Your task to perform on an android device: clear all cookies in the chrome app Image 0: 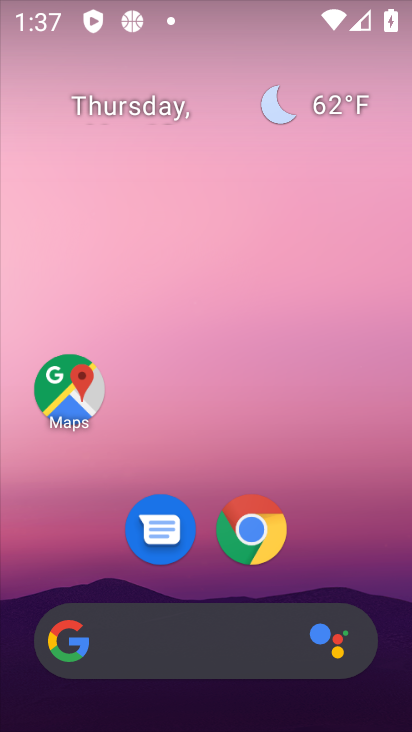
Step 0: click (254, 527)
Your task to perform on an android device: clear all cookies in the chrome app Image 1: 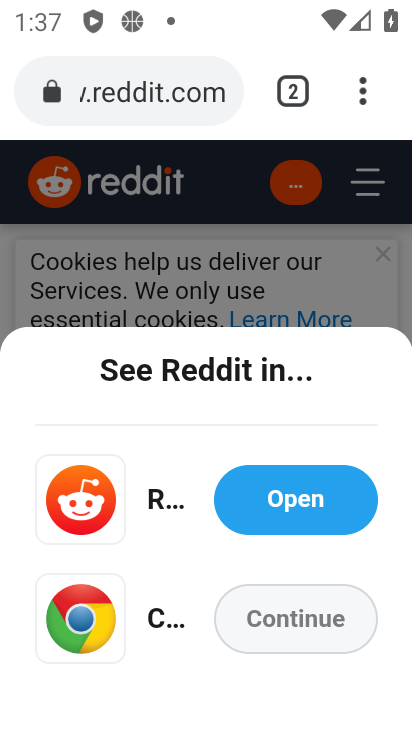
Step 1: click (365, 90)
Your task to perform on an android device: clear all cookies in the chrome app Image 2: 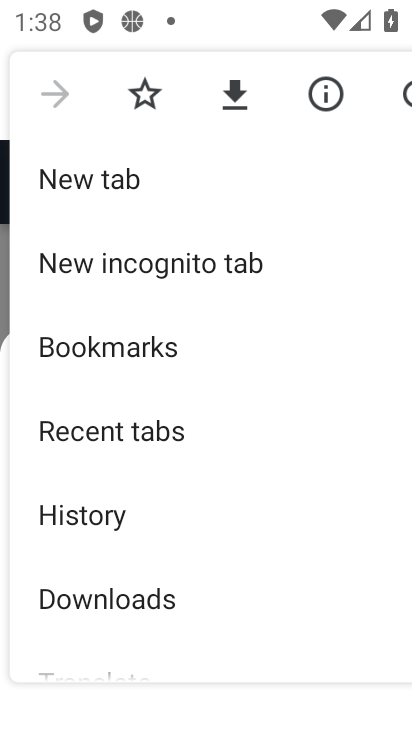
Step 2: drag from (175, 460) to (211, 379)
Your task to perform on an android device: clear all cookies in the chrome app Image 3: 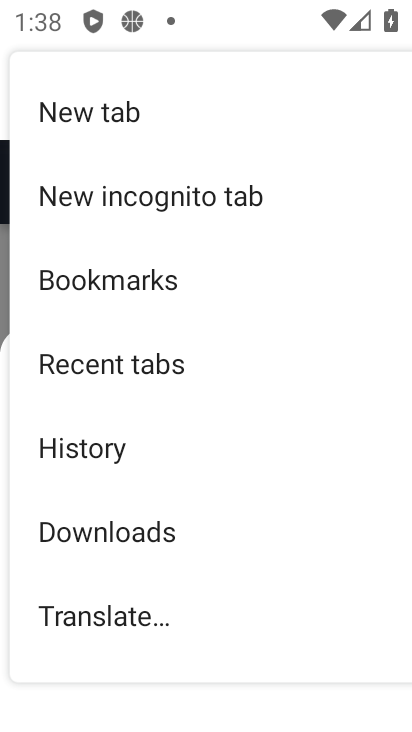
Step 3: drag from (144, 518) to (195, 449)
Your task to perform on an android device: clear all cookies in the chrome app Image 4: 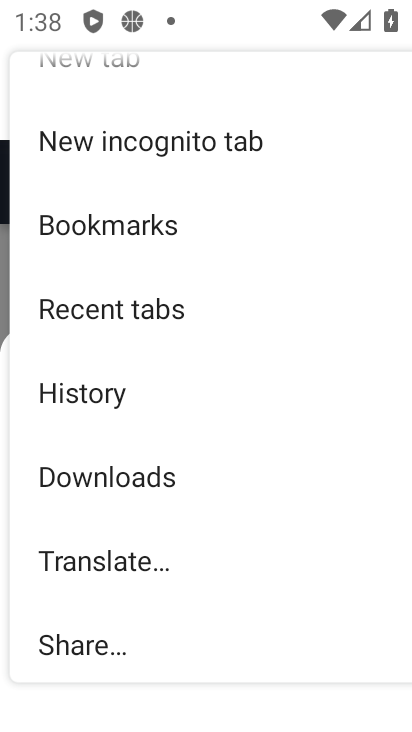
Step 4: drag from (132, 519) to (203, 435)
Your task to perform on an android device: clear all cookies in the chrome app Image 5: 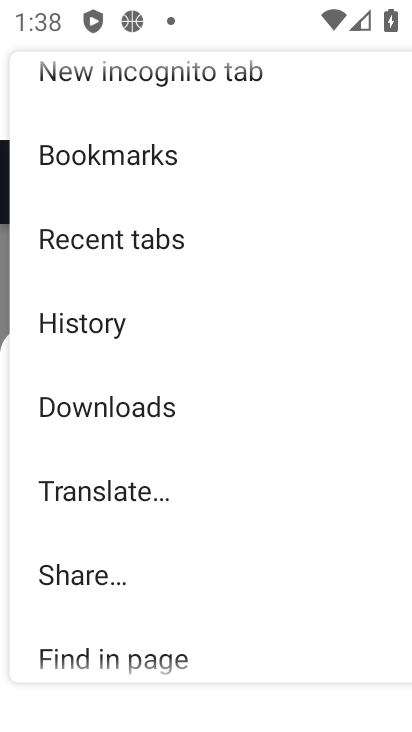
Step 5: drag from (109, 535) to (192, 436)
Your task to perform on an android device: clear all cookies in the chrome app Image 6: 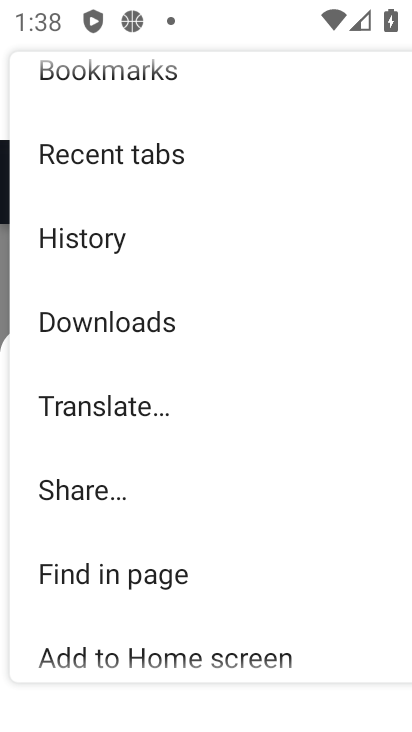
Step 6: drag from (103, 529) to (206, 416)
Your task to perform on an android device: clear all cookies in the chrome app Image 7: 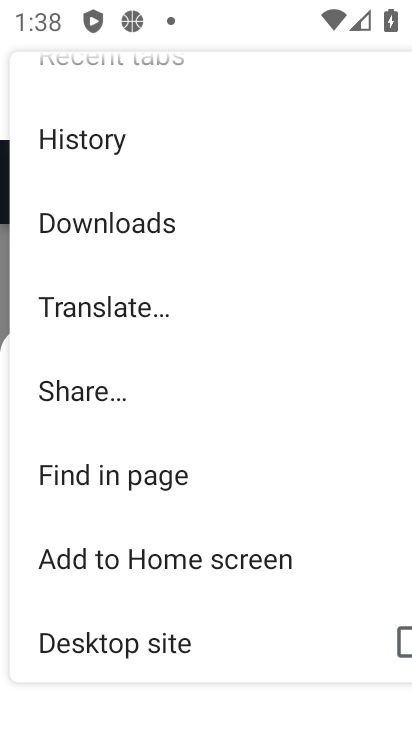
Step 7: drag from (148, 487) to (217, 397)
Your task to perform on an android device: clear all cookies in the chrome app Image 8: 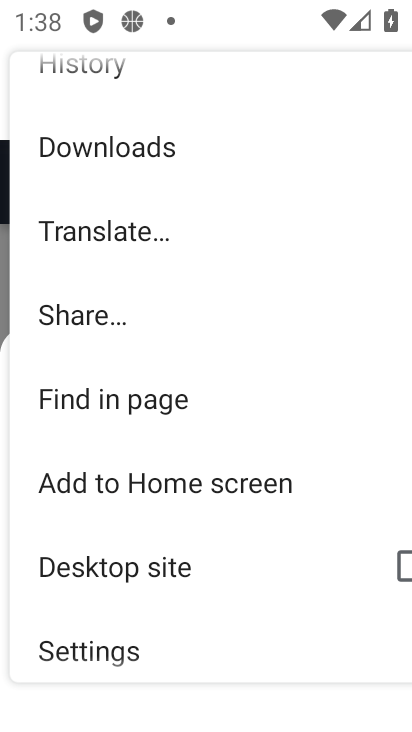
Step 8: drag from (120, 529) to (196, 383)
Your task to perform on an android device: clear all cookies in the chrome app Image 9: 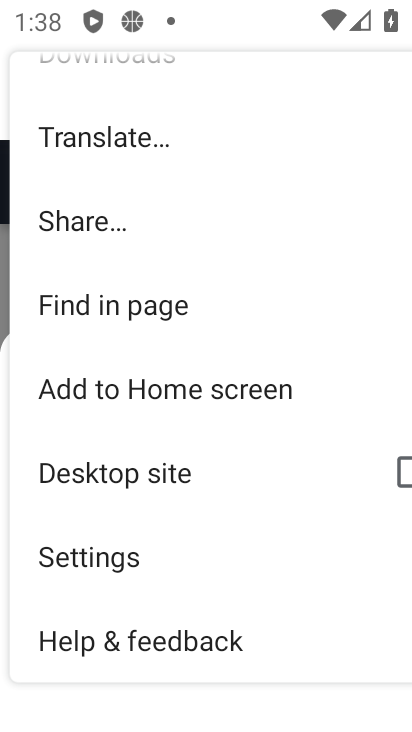
Step 9: drag from (95, 583) to (170, 483)
Your task to perform on an android device: clear all cookies in the chrome app Image 10: 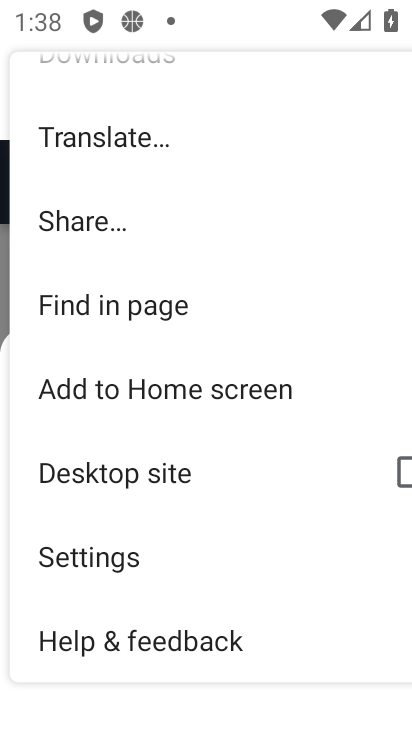
Step 10: drag from (80, 588) to (196, 448)
Your task to perform on an android device: clear all cookies in the chrome app Image 11: 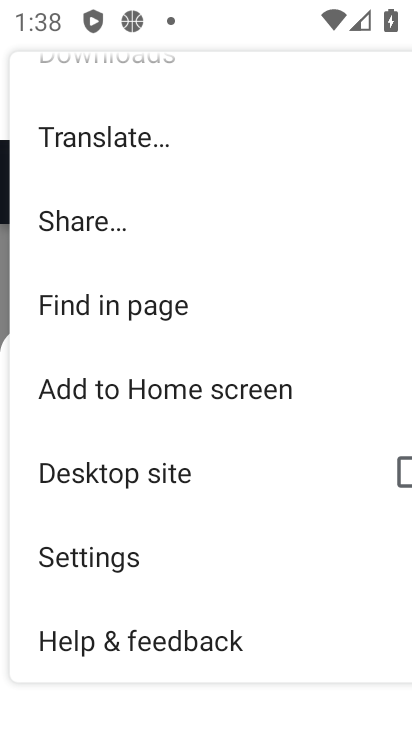
Step 11: click (119, 551)
Your task to perform on an android device: clear all cookies in the chrome app Image 12: 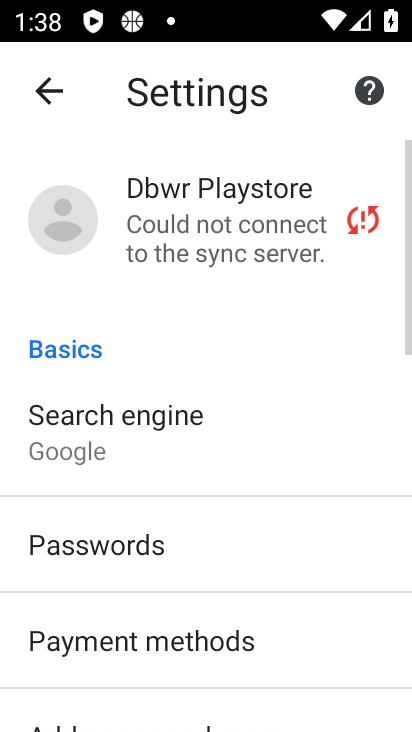
Step 12: drag from (118, 585) to (240, 434)
Your task to perform on an android device: clear all cookies in the chrome app Image 13: 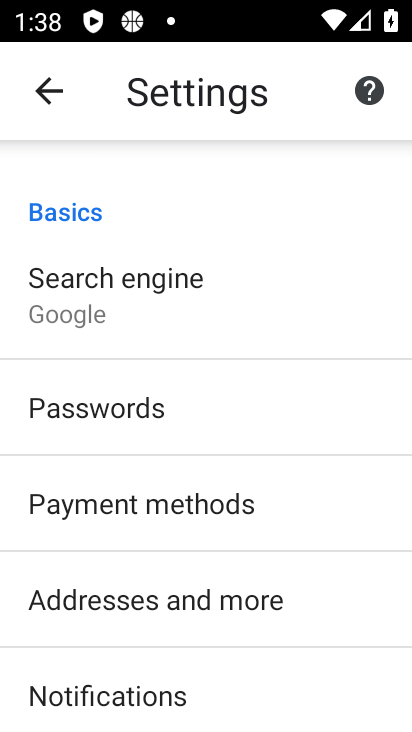
Step 13: drag from (141, 646) to (265, 495)
Your task to perform on an android device: clear all cookies in the chrome app Image 14: 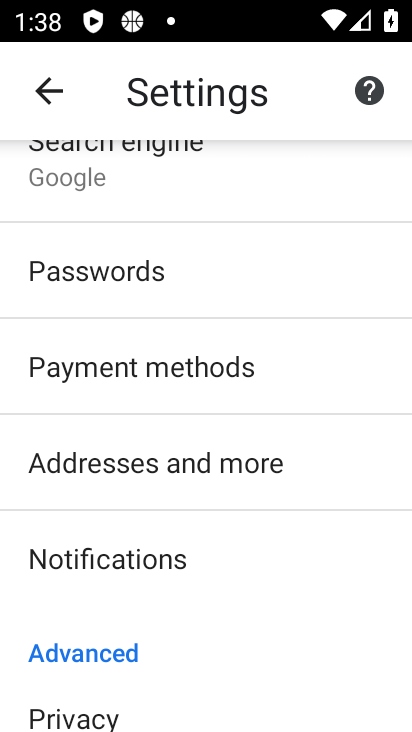
Step 14: drag from (165, 687) to (267, 550)
Your task to perform on an android device: clear all cookies in the chrome app Image 15: 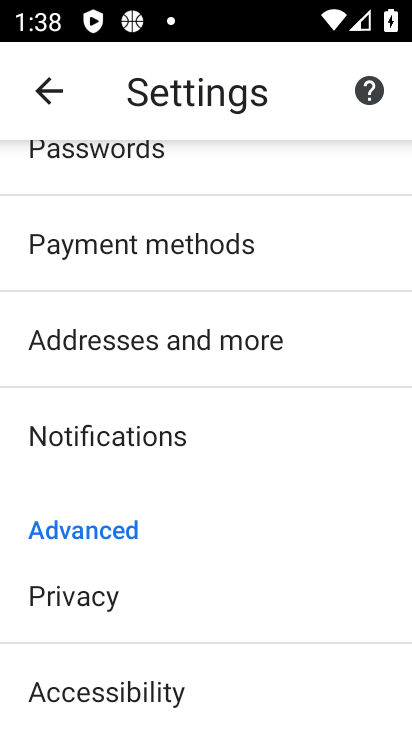
Step 15: click (80, 599)
Your task to perform on an android device: clear all cookies in the chrome app Image 16: 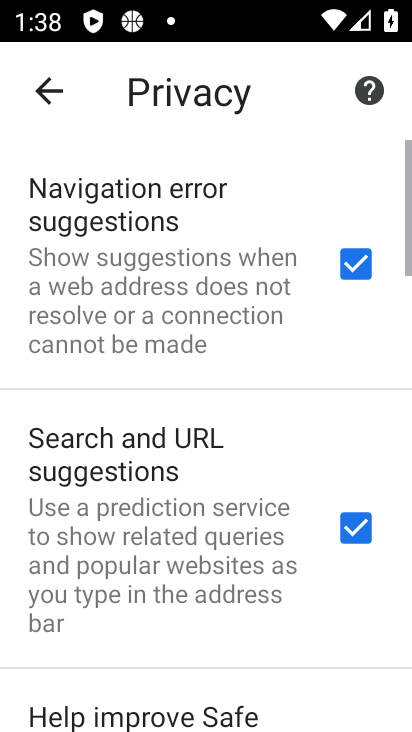
Step 16: drag from (125, 667) to (250, 512)
Your task to perform on an android device: clear all cookies in the chrome app Image 17: 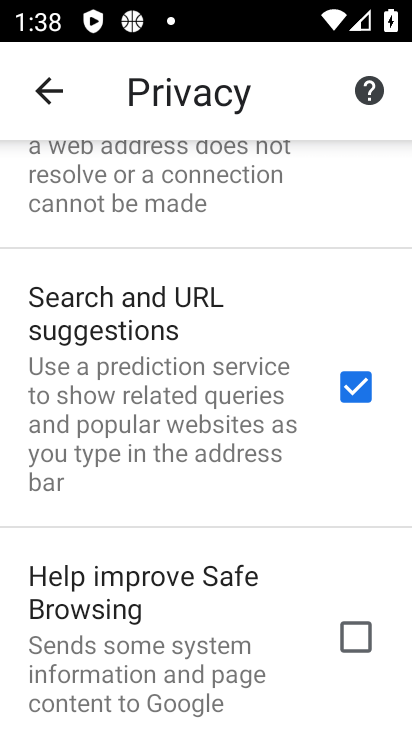
Step 17: drag from (165, 676) to (239, 517)
Your task to perform on an android device: clear all cookies in the chrome app Image 18: 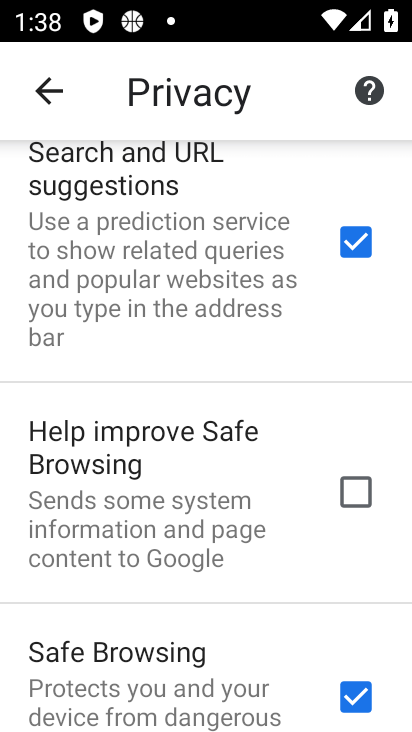
Step 18: drag from (183, 697) to (258, 481)
Your task to perform on an android device: clear all cookies in the chrome app Image 19: 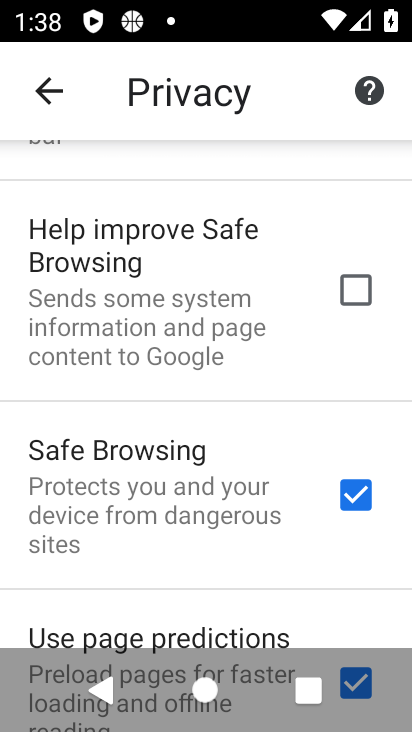
Step 19: drag from (171, 611) to (282, 447)
Your task to perform on an android device: clear all cookies in the chrome app Image 20: 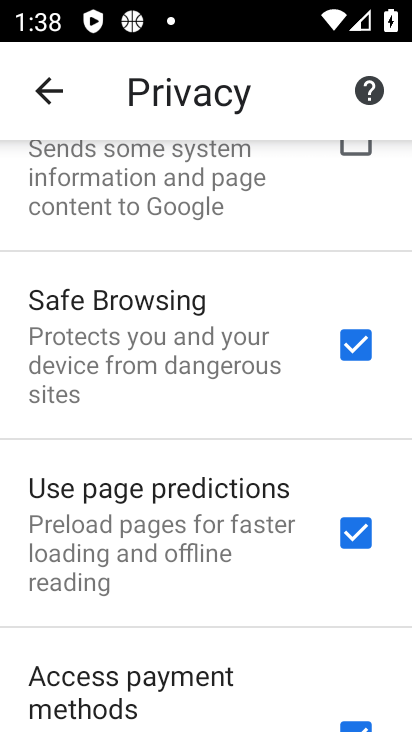
Step 20: drag from (183, 601) to (288, 445)
Your task to perform on an android device: clear all cookies in the chrome app Image 21: 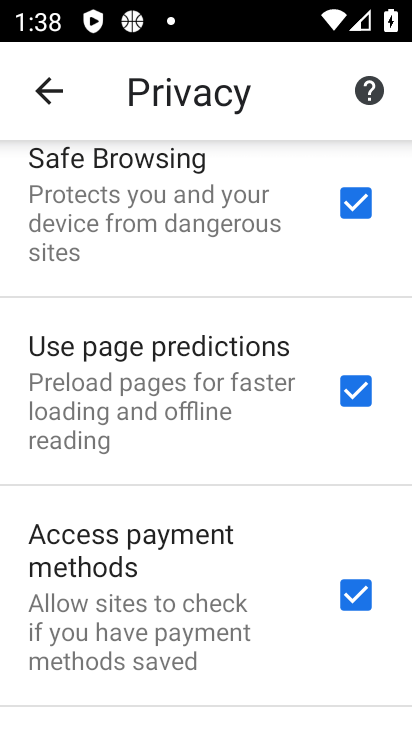
Step 21: drag from (194, 582) to (298, 402)
Your task to perform on an android device: clear all cookies in the chrome app Image 22: 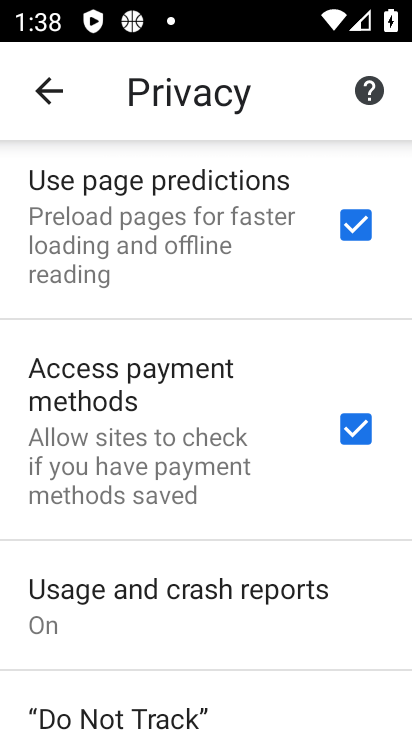
Step 22: drag from (160, 610) to (233, 431)
Your task to perform on an android device: clear all cookies in the chrome app Image 23: 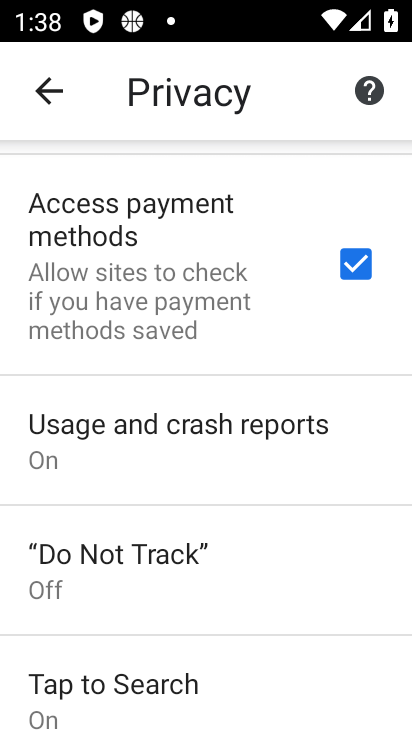
Step 23: drag from (154, 602) to (218, 433)
Your task to perform on an android device: clear all cookies in the chrome app Image 24: 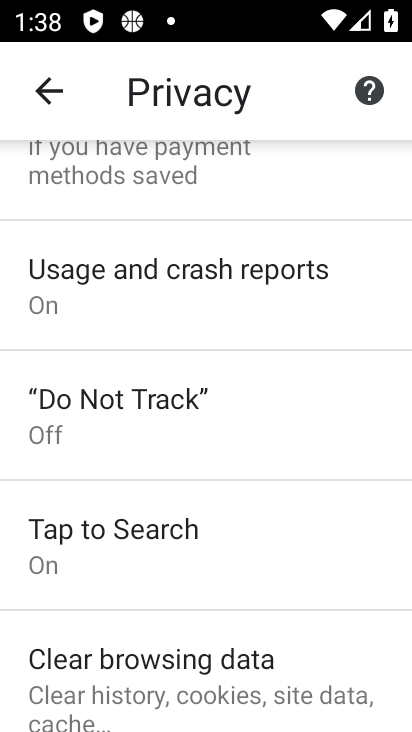
Step 24: drag from (153, 566) to (276, 413)
Your task to perform on an android device: clear all cookies in the chrome app Image 25: 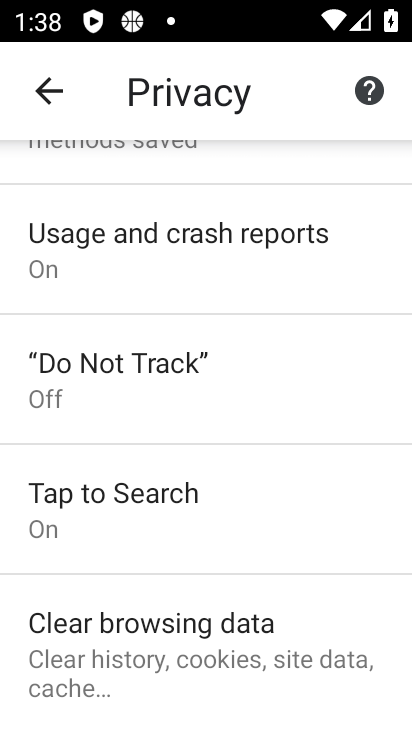
Step 25: click (183, 623)
Your task to perform on an android device: clear all cookies in the chrome app Image 26: 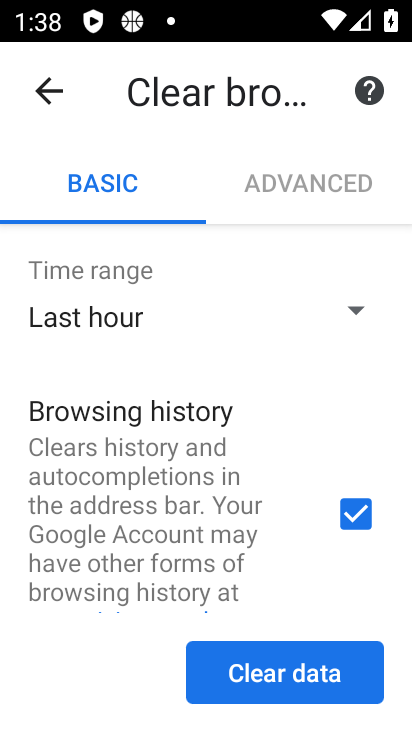
Step 26: click (360, 311)
Your task to perform on an android device: clear all cookies in the chrome app Image 27: 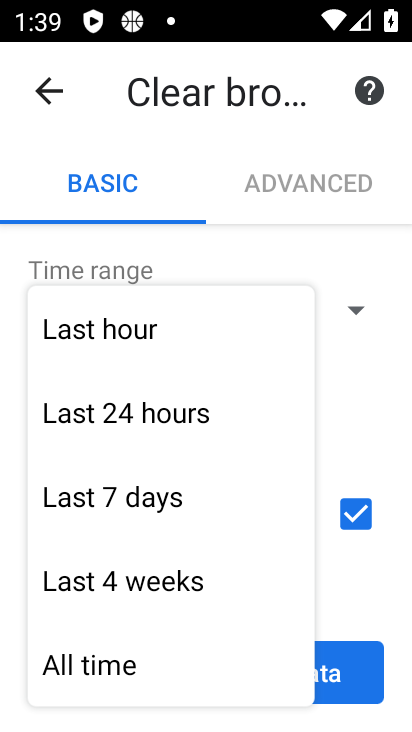
Step 27: click (92, 669)
Your task to perform on an android device: clear all cookies in the chrome app Image 28: 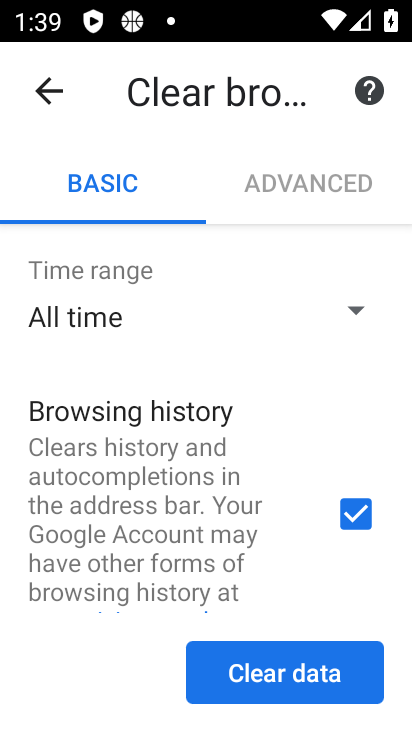
Step 28: drag from (265, 518) to (358, 347)
Your task to perform on an android device: clear all cookies in the chrome app Image 29: 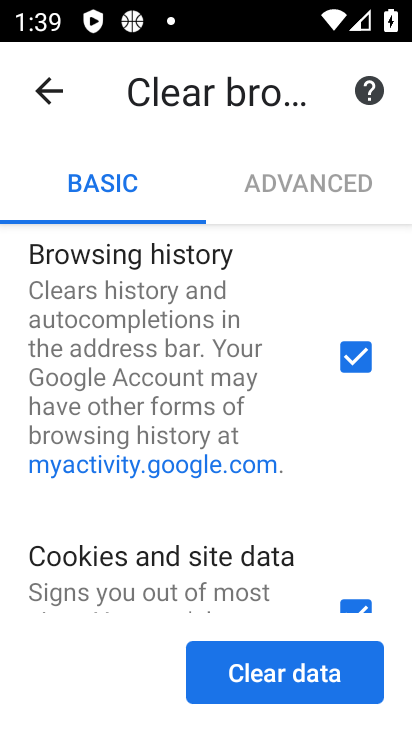
Step 29: click (361, 366)
Your task to perform on an android device: clear all cookies in the chrome app Image 30: 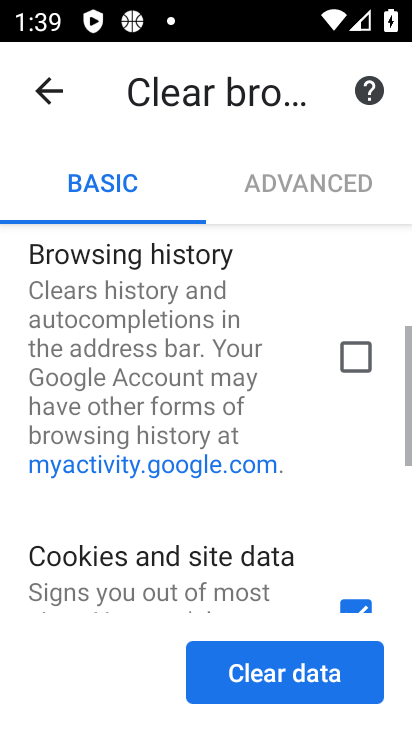
Step 30: drag from (230, 572) to (339, 345)
Your task to perform on an android device: clear all cookies in the chrome app Image 31: 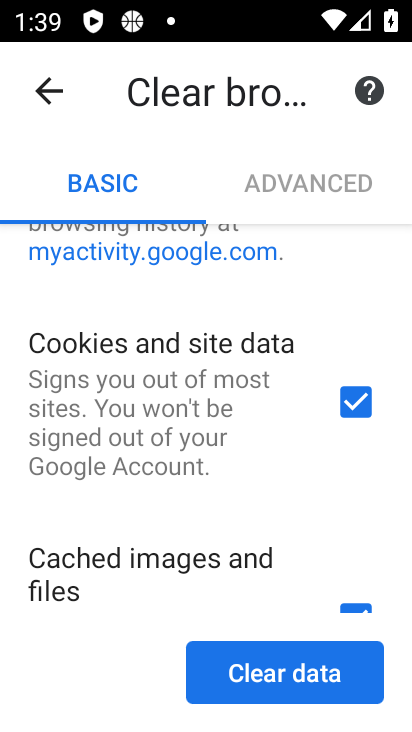
Step 31: drag from (304, 582) to (335, 472)
Your task to perform on an android device: clear all cookies in the chrome app Image 32: 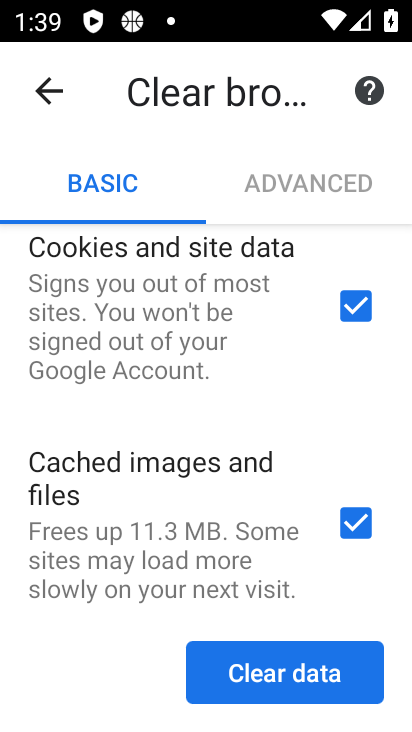
Step 32: click (356, 532)
Your task to perform on an android device: clear all cookies in the chrome app Image 33: 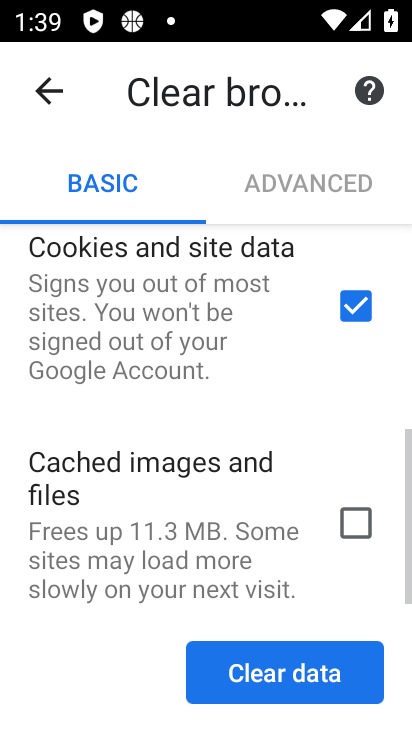
Step 33: click (269, 665)
Your task to perform on an android device: clear all cookies in the chrome app Image 34: 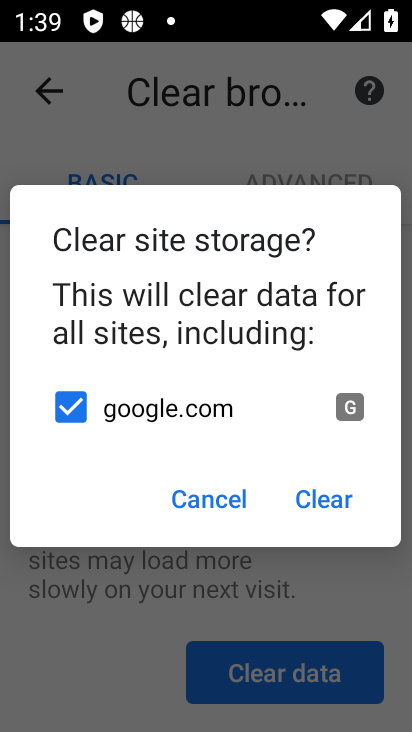
Step 34: click (351, 495)
Your task to perform on an android device: clear all cookies in the chrome app Image 35: 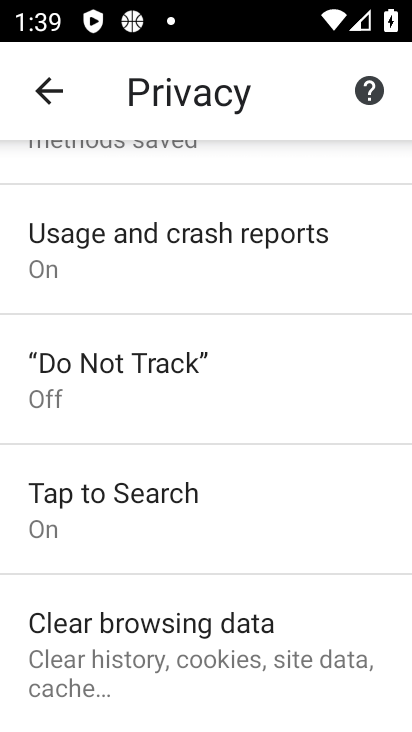
Step 35: task complete